Your task to perform on an android device: change the clock display to digital Image 0: 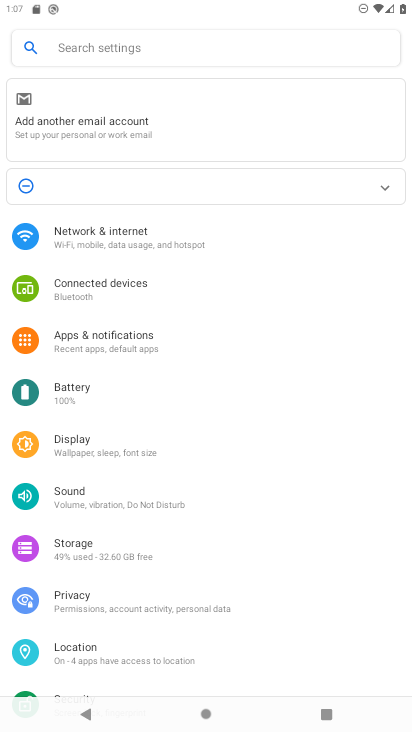
Step 0: press home button
Your task to perform on an android device: change the clock display to digital Image 1: 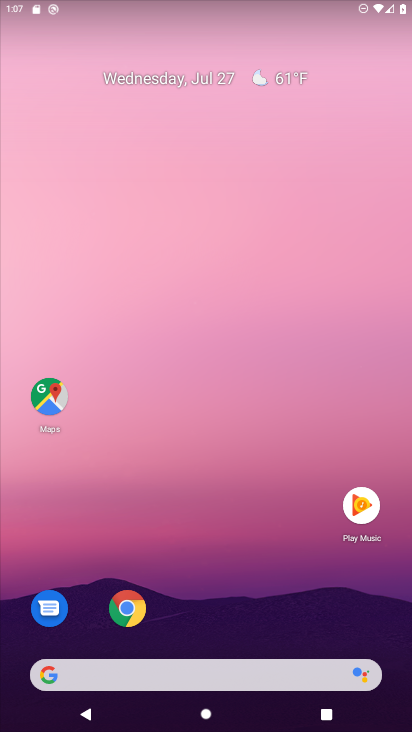
Step 1: drag from (282, 605) to (293, 159)
Your task to perform on an android device: change the clock display to digital Image 2: 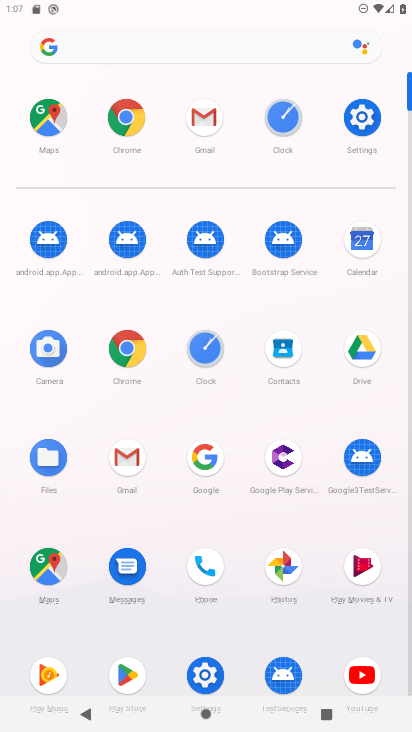
Step 2: click (203, 354)
Your task to perform on an android device: change the clock display to digital Image 3: 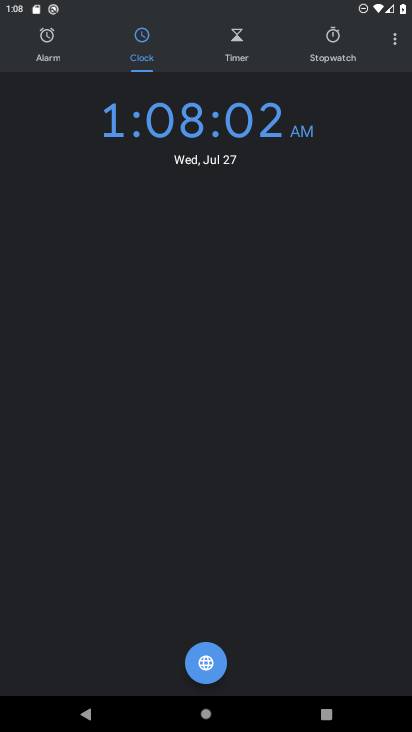
Step 3: click (392, 42)
Your task to perform on an android device: change the clock display to digital Image 4: 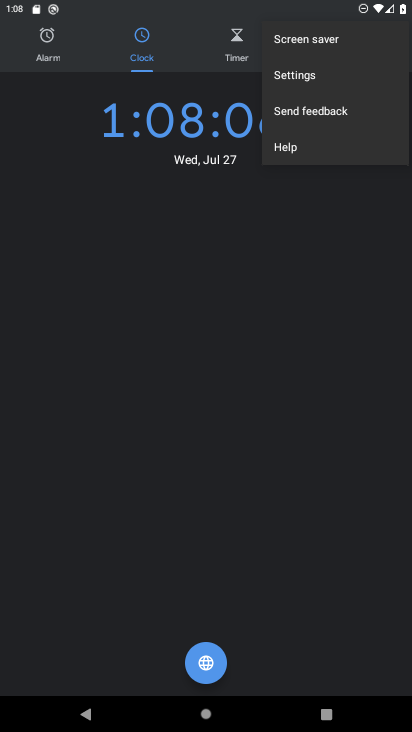
Step 4: click (332, 83)
Your task to perform on an android device: change the clock display to digital Image 5: 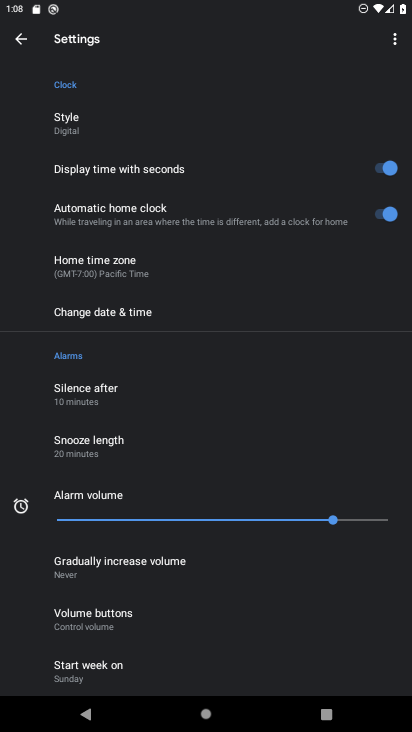
Step 5: task complete